Your task to perform on an android device: What's the weather today? Image 0: 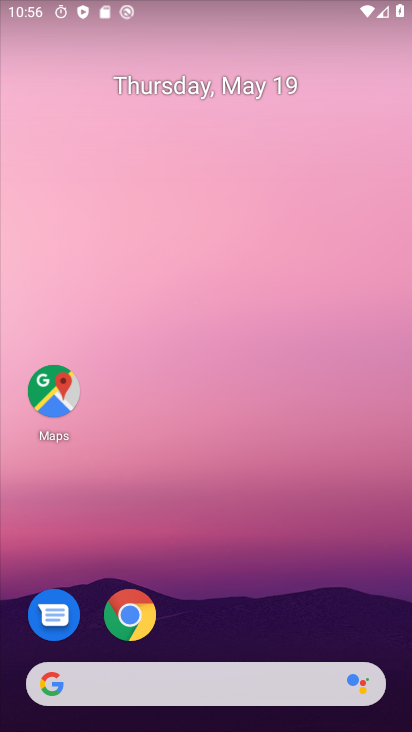
Step 0: drag from (18, 222) to (409, 268)
Your task to perform on an android device: What's the weather today? Image 1: 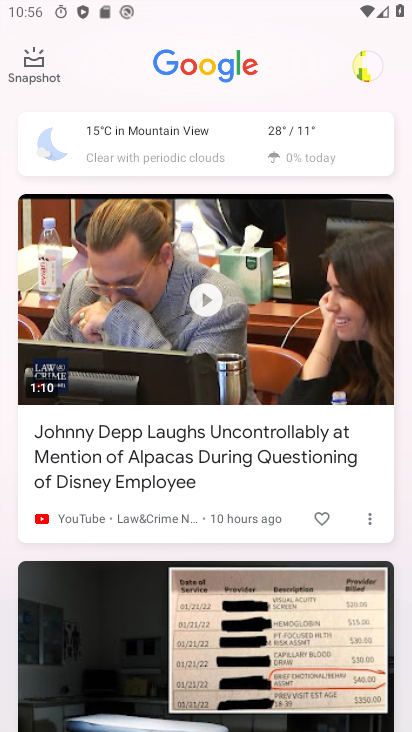
Step 1: click (264, 140)
Your task to perform on an android device: What's the weather today? Image 2: 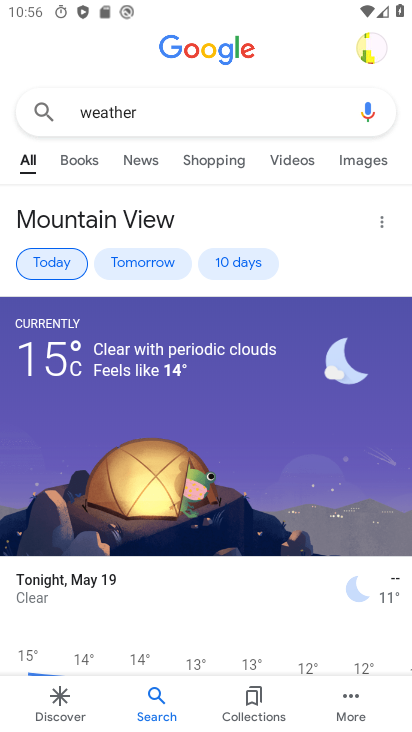
Step 2: task complete